Your task to perform on an android device: open a bookmark in the chrome app Image 0: 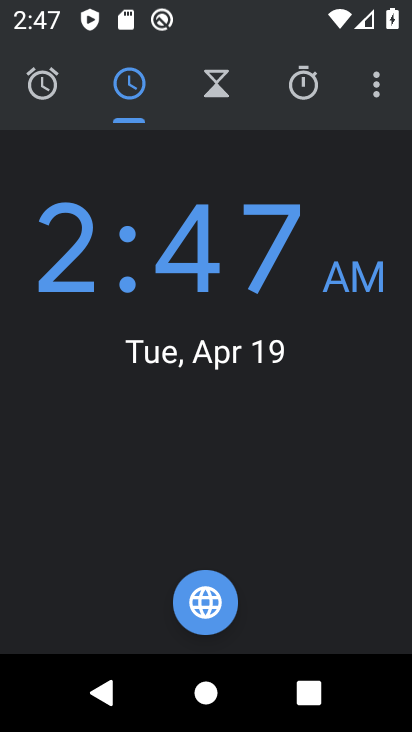
Step 0: press home button
Your task to perform on an android device: open a bookmark in the chrome app Image 1: 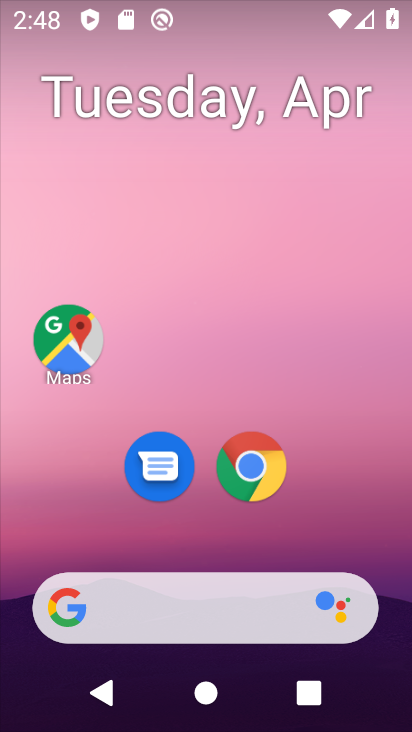
Step 1: click (255, 488)
Your task to perform on an android device: open a bookmark in the chrome app Image 2: 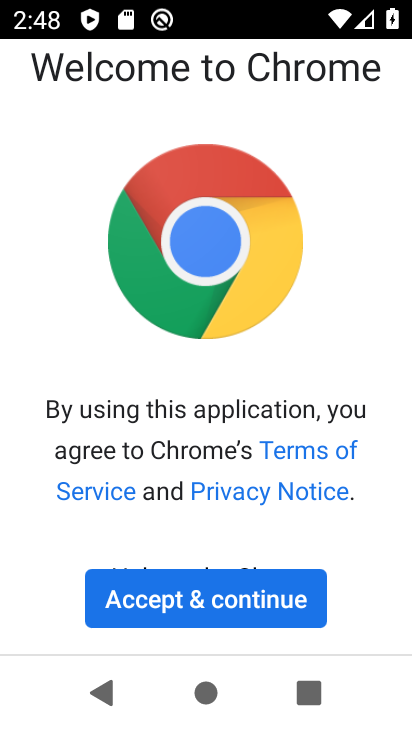
Step 2: click (210, 620)
Your task to perform on an android device: open a bookmark in the chrome app Image 3: 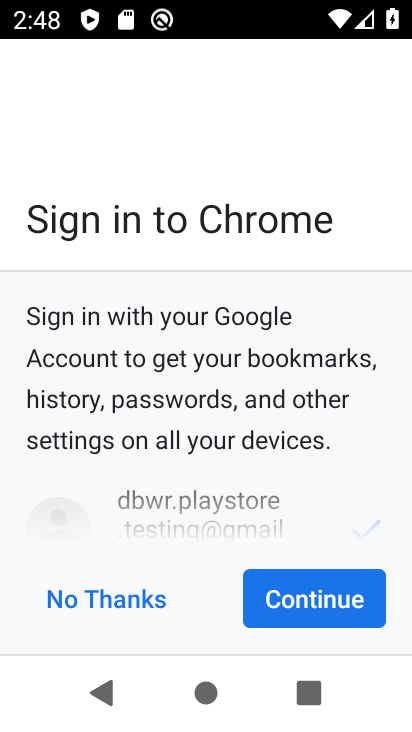
Step 3: click (272, 596)
Your task to perform on an android device: open a bookmark in the chrome app Image 4: 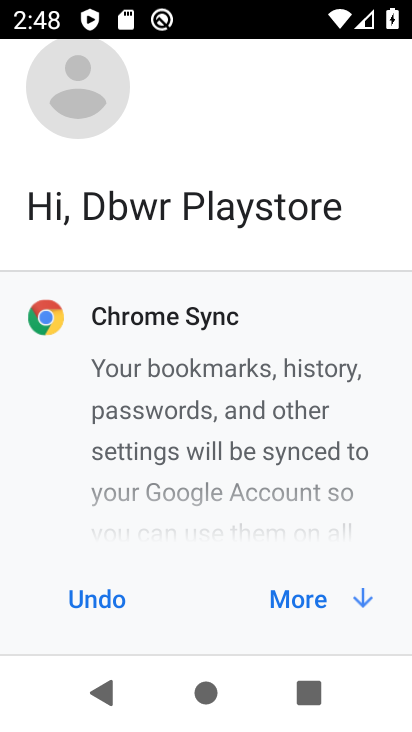
Step 4: click (312, 603)
Your task to perform on an android device: open a bookmark in the chrome app Image 5: 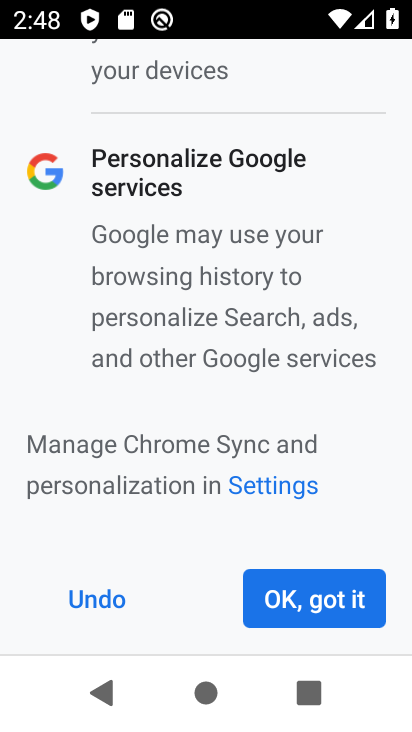
Step 5: click (314, 612)
Your task to perform on an android device: open a bookmark in the chrome app Image 6: 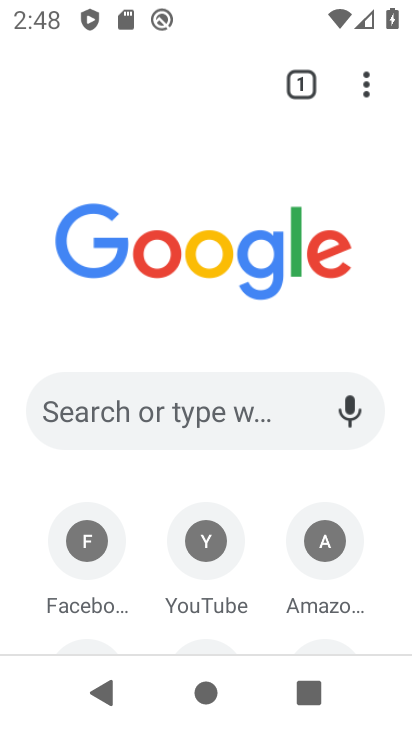
Step 6: task complete